Your task to perform on an android device: turn off notifications in google photos Image 0: 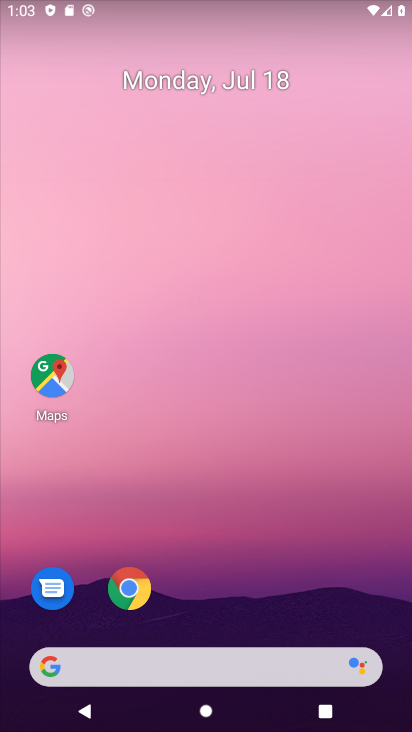
Step 0: drag from (219, 628) to (288, 140)
Your task to perform on an android device: turn off notifications in google photos Image 1: 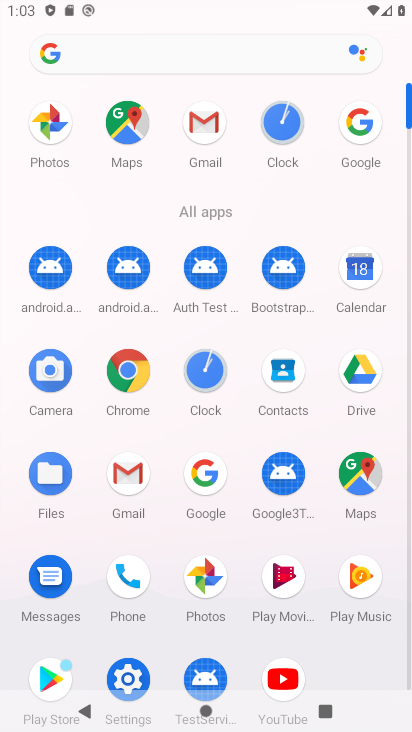
Step 1: click (217, 573)
Your task to perform on an android device: turn off notifications in google photos Image 2: 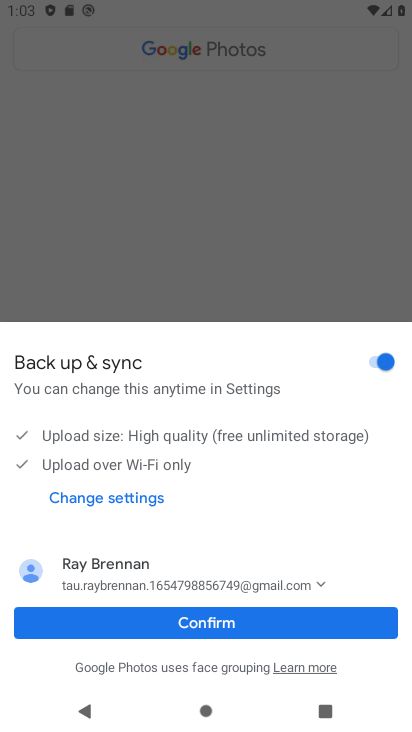
Step 2: click (206, 610)
Your task to perform on an android device: turn off notifications in google photos Image 3: 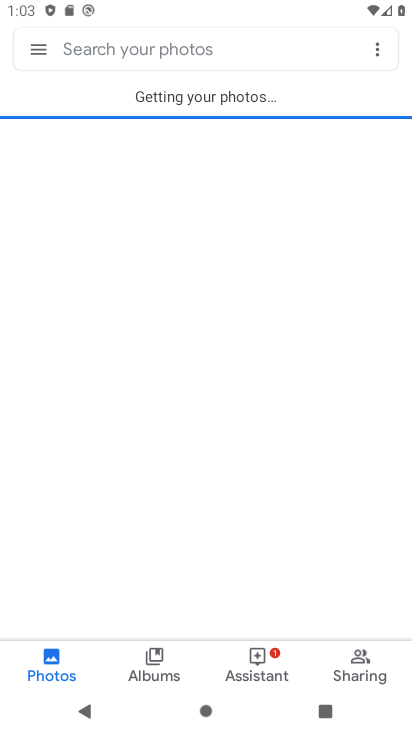
Step 3: click (46, 42)
Your task to perform on an android device: turn off notifications in google photos Image 4: 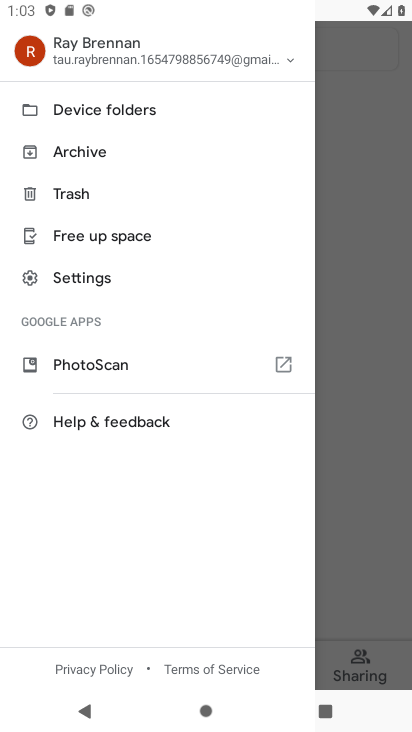
Step 4: click (126, 291)
Your task to perform on an android device: turn off notifications in google photos Image 5: 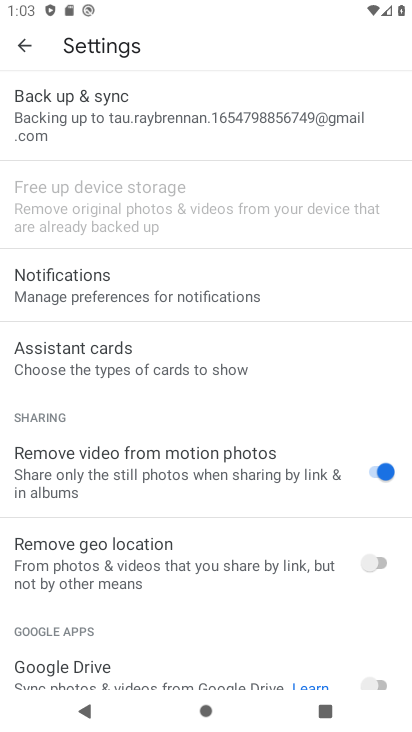
Step 5: click (135, 269)
Your task to perform on an android device: turn off notifications in google photos Image 6: 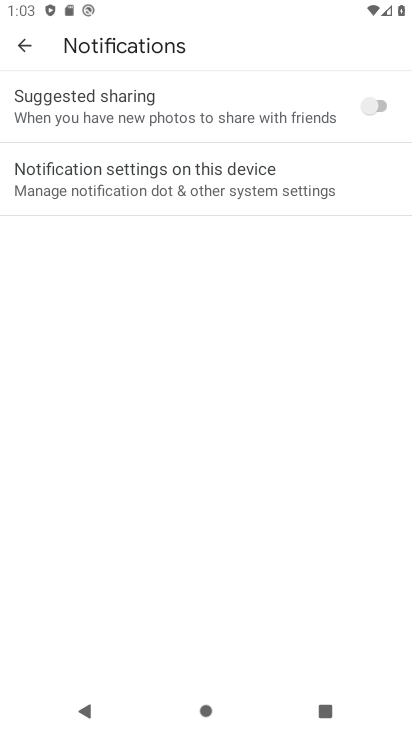
Step 6: click (197, 201)
Your task to perform on an android device: turn off notifications in google photos Image 7: 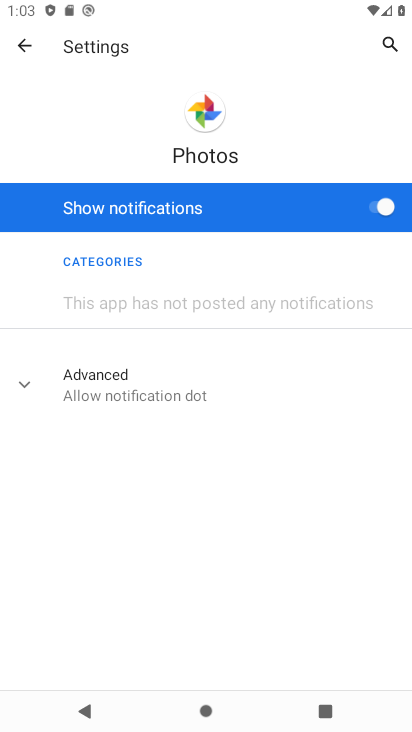
Step 7: click (370, 202)
Your task to perform on an android device: turn off notifications in google photos Image 8: 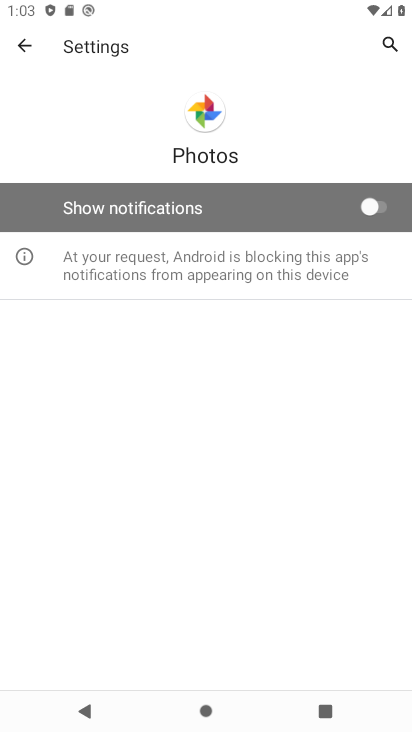
Step 8: task complete